Your task to perform on an android device: Show me recent news Image 0: 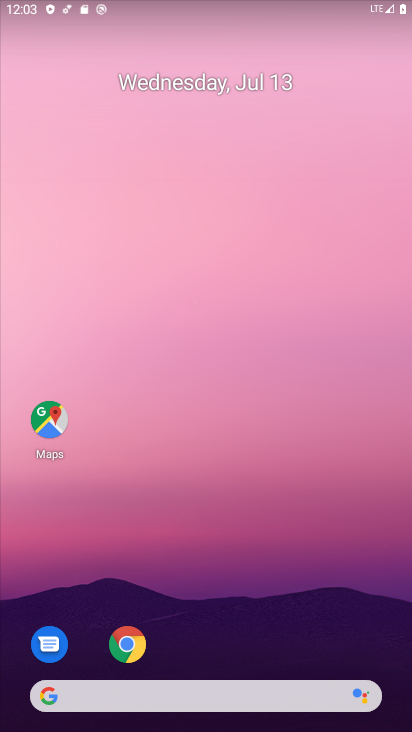
Step 0: drag from (208, 646) to (225, 98)
Your task to perform on an android device: Show me recent news Image 1: 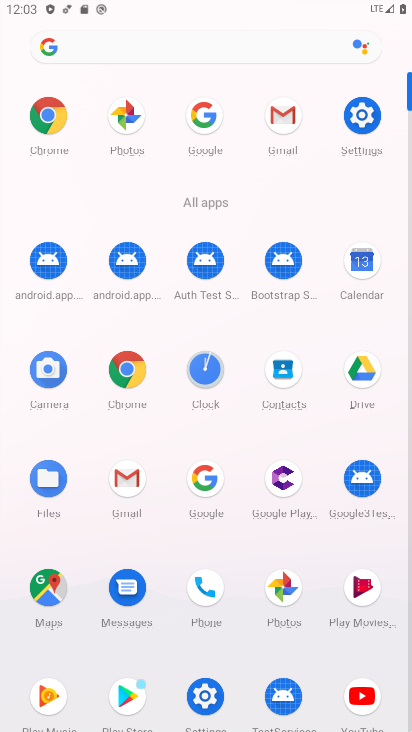
Step 1: click (211, 478)
Your task to perform on an android device: Show me recent news Image 2: 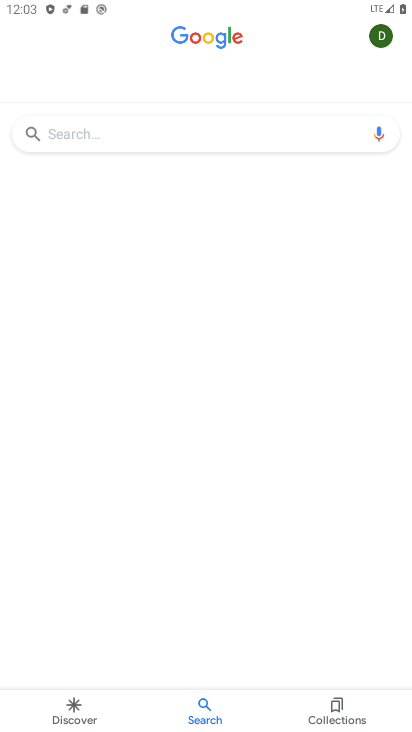
Step 2: click (197, 137)
Your task to perform on an android device: Show me recent news Image 3: 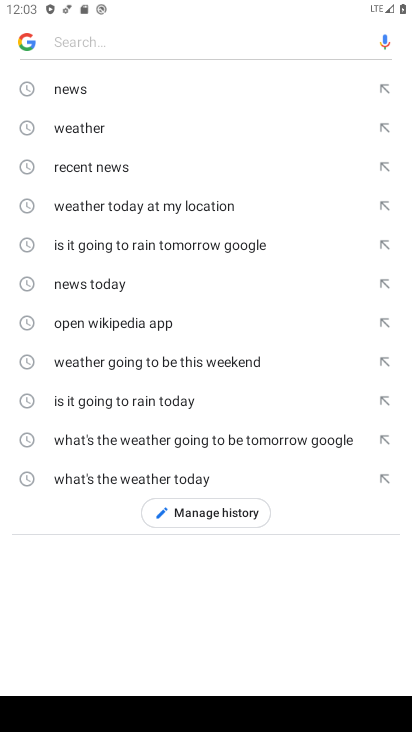
Step 3: click (87, 167)
Your task to perform on an android device: Show me recent news Image 4: 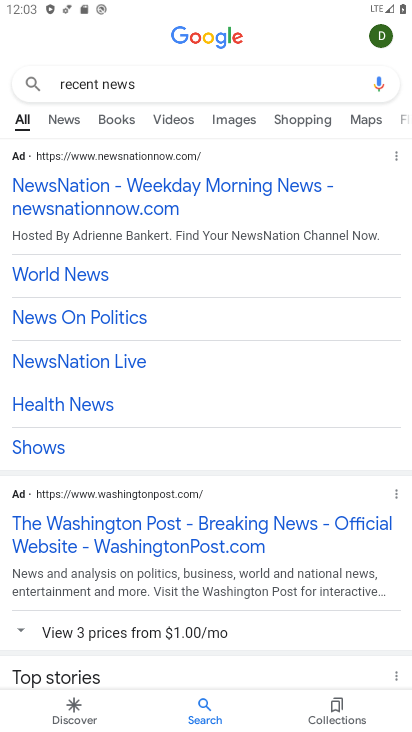
Step 4: task complete